Your task to perform on an android device: Open Reddit.com Image 0: 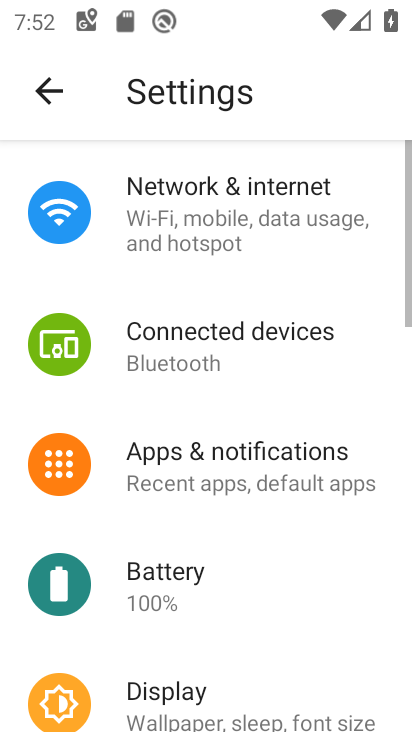
Step 0: press back button
Your task to perform on an android device: Open Reddit.com Image 1: 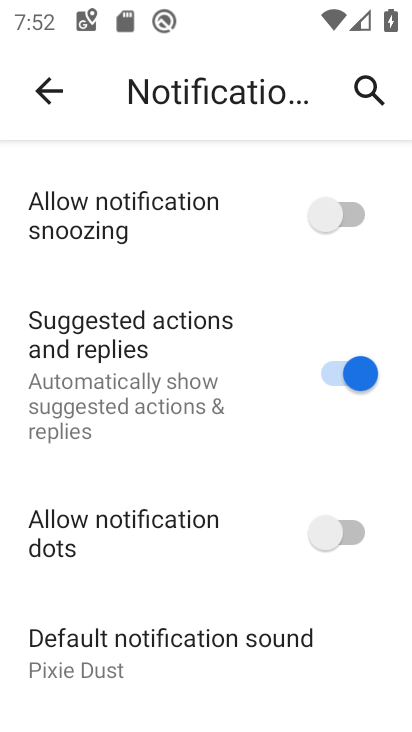
Step 1: press home button
Your task to perform on an android device: Open Reddit.com Image 2: 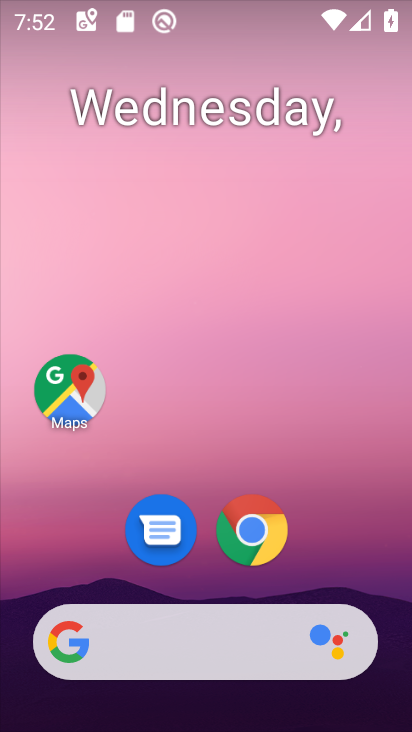
Step 2: click (275, 529)
Your task to perform on an android device: Open Reddit.com Image 3: 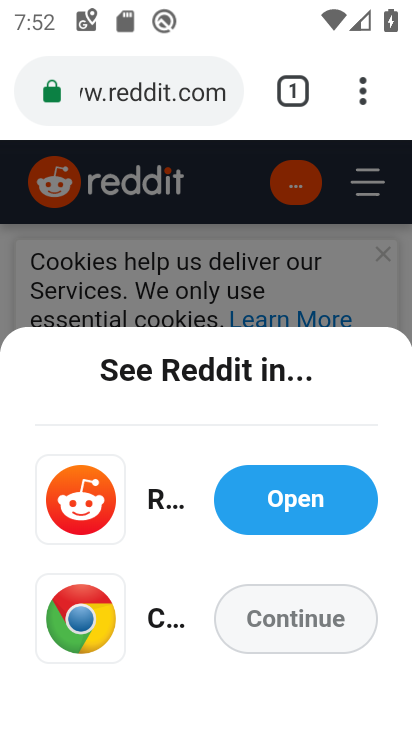
Step 3: press back button
Your task to perform on an android device: Open Reddit.com Image 4: 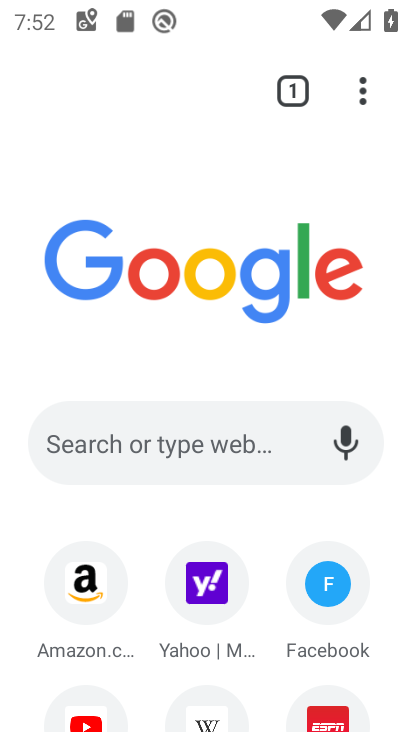
Step 4: click (198, 436)
Your task to perform on an android device: Open Reddit.com Image 5: 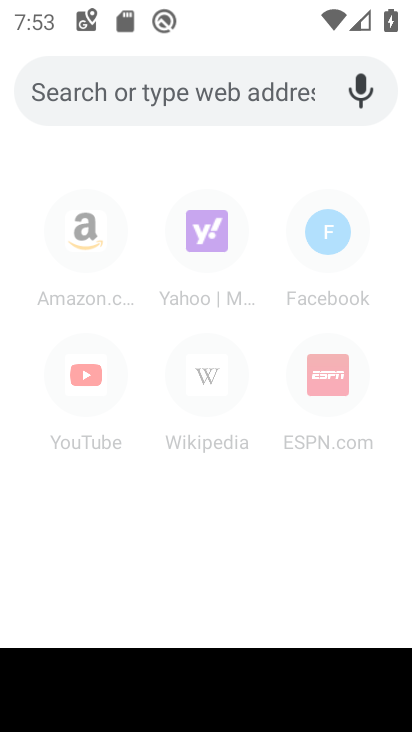
Step 5: type "reddit.com"
Your task to perform on an android device: Open Reddit.com Image 6: 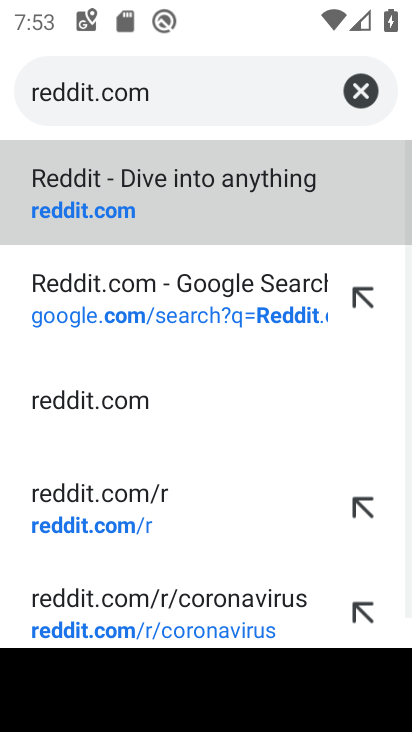
Step 6: click (203, 238)
Your task to perform on an android device: Open Reddit.com Image 7: 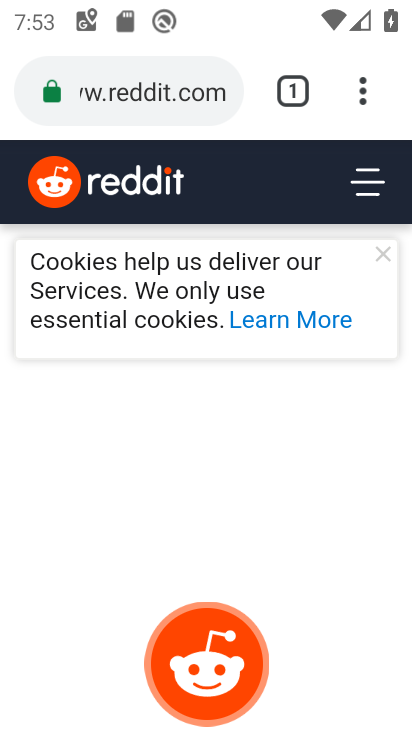
Step 7: task complete